Your task to perform on an android device: Open sound settings Image 0: 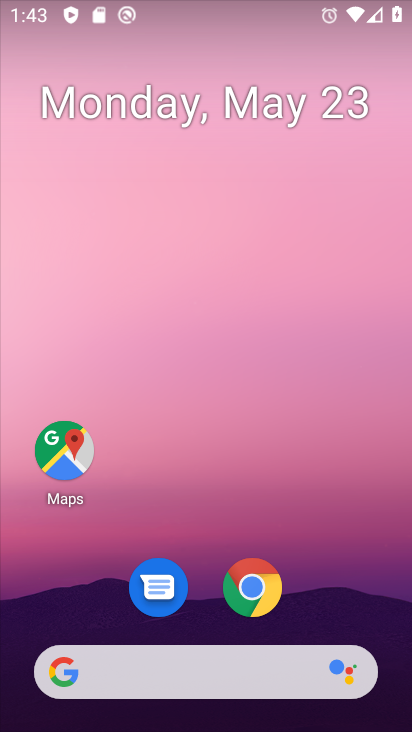
Step 0: drag from (377, 553) to (320, 131)
Your task to perform on an android device: Open sound settings Image 1: 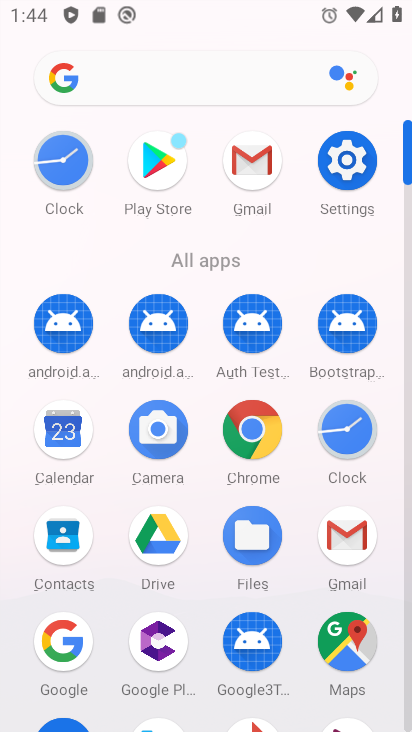
Step 1: click (345, 129)
Your task to perform on an android device: Open sound settings Image 2: 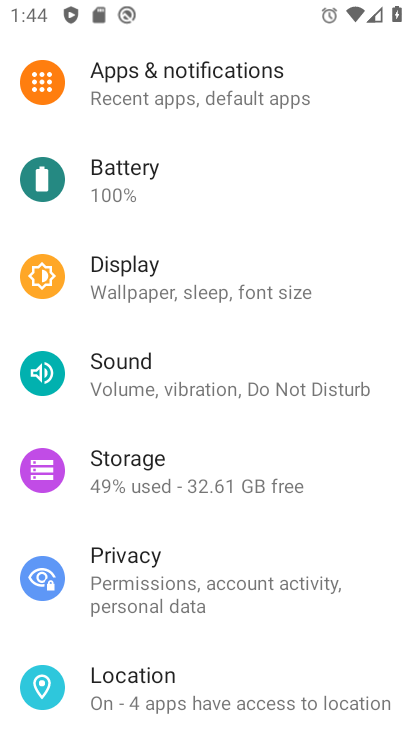
Step 2: click (239, 412)
Your task to perform on an android device: Open sound settings Image 3: 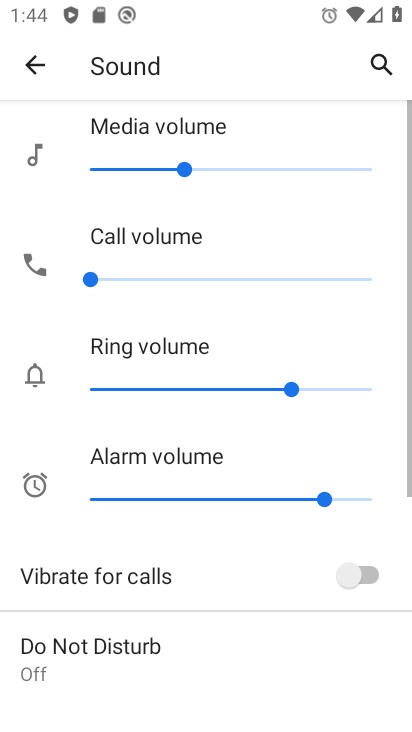
Step 3: task complete